Your task to perform on an android device: Do I have any events tomorrow? Image 0: 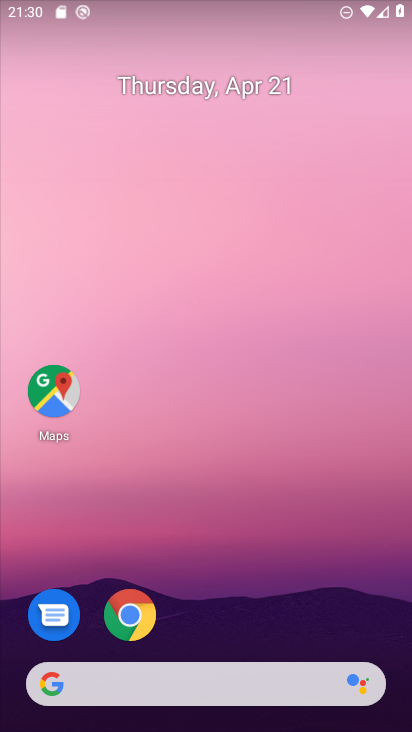
Step 0: drag from (208, 646) to (266, 219)
Your task to perform on an android device: Do I have any events tomorrow? Image 1: 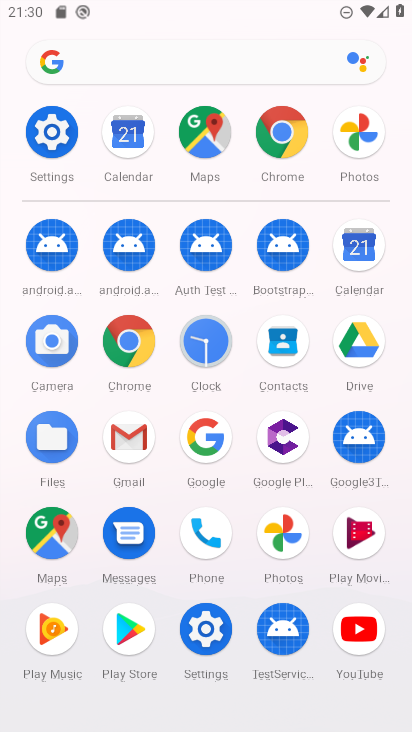
Step 1: click (362, 241)
Your task to perform on an android device: Do I have any events tomorrow? Image 2: 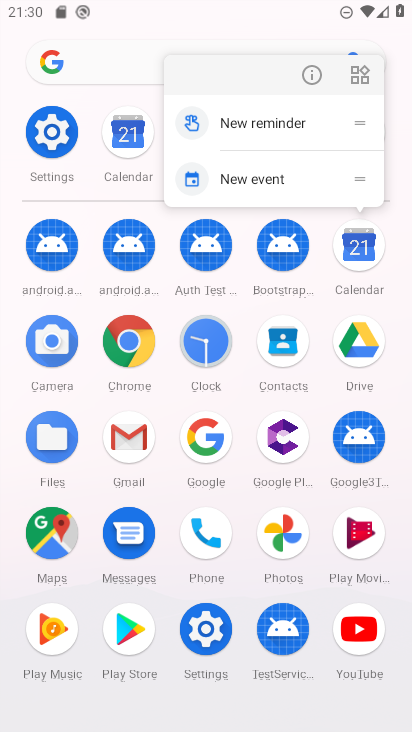
Step 2: click (311, 70)
Your task to perform on an android device: Do I have any events tomorrow? Image 3: 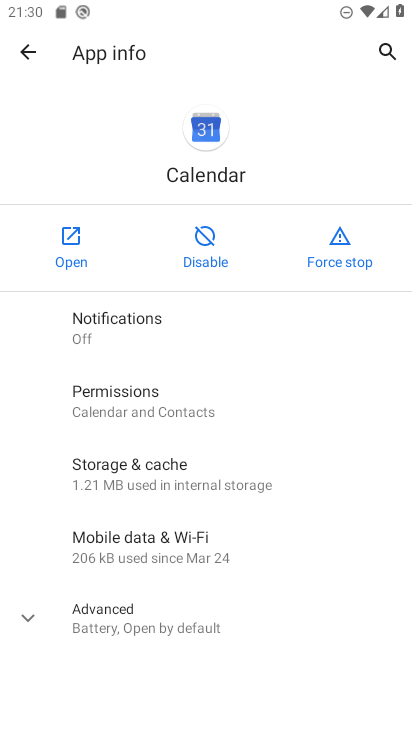
Step 3: click (74, 260)
Your task to perform on an android device: Do I have any events tomorrow? Image 4: 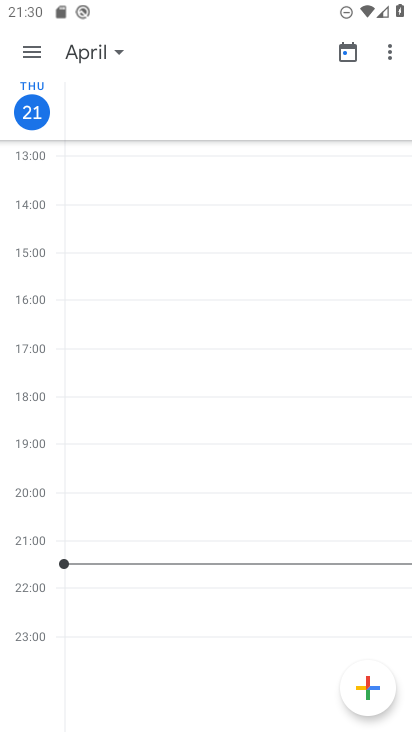
Step 4: click (71, 246)
Your task to perform on an android device: Do I have any events tomorrow? Image 5: 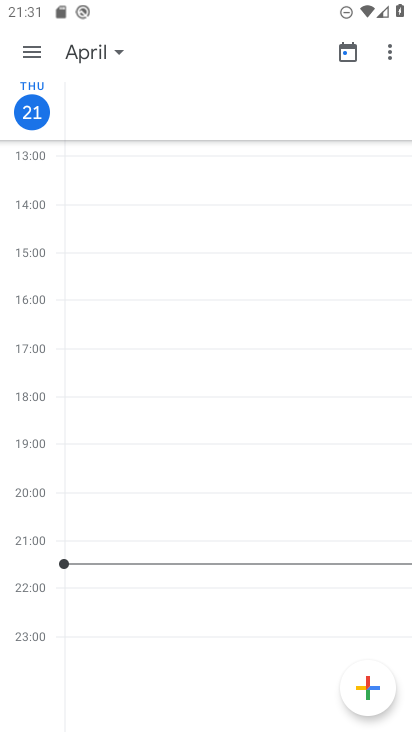
Step 5: click (96, 53)
Your task to perform on an android device: Do I have any events tomorrow? Image 6: 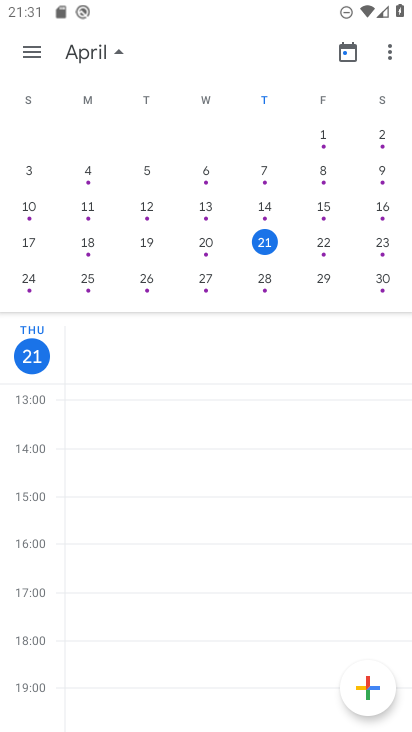
Step 6: click (309, 239)
Your task to perform on an android device: Do I have any events tomorrow? Image 7: 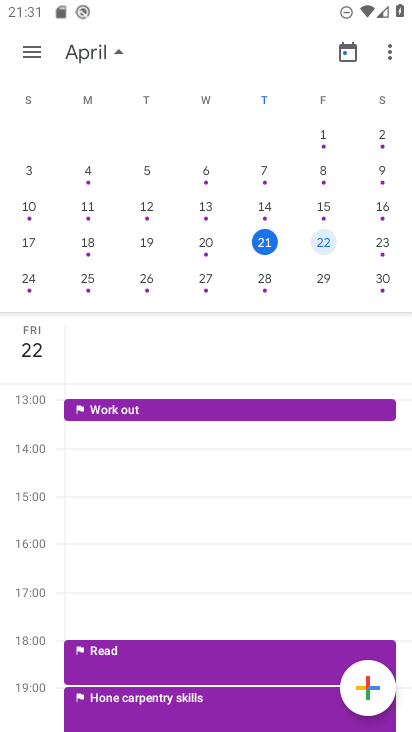
Step 7: task complete